Your task to perform on an android device: Open wifi settings Image 0: 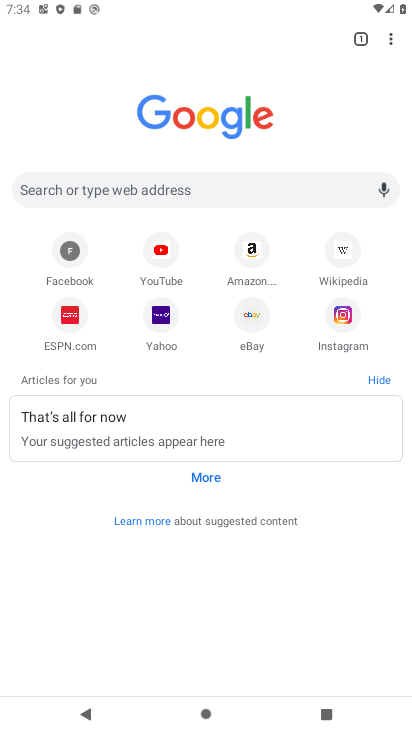
Step 0: press home button
Your task to perform on an android device: Open wifi settings Image 1: 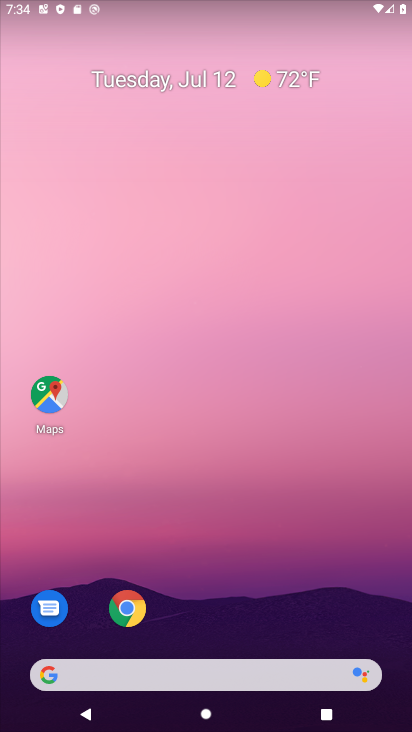
Step 1: drag from (368, 605) to (370, 128)
Your task to perform on an android device: Open wifi settings Image 2: 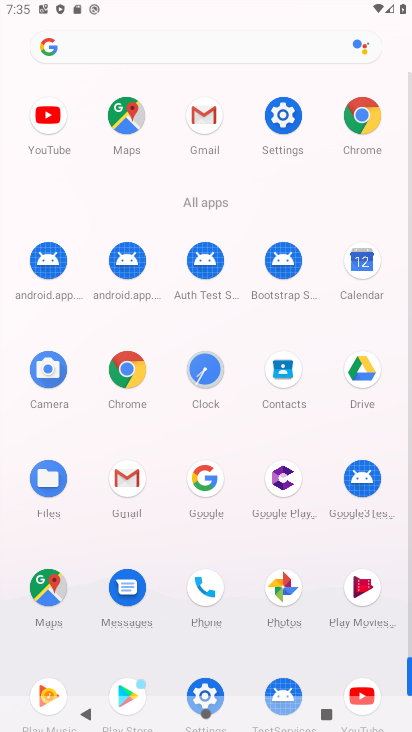
Step 2: click (286, 116)
Your task to perform on an android device: Open wifi settings Image 3: 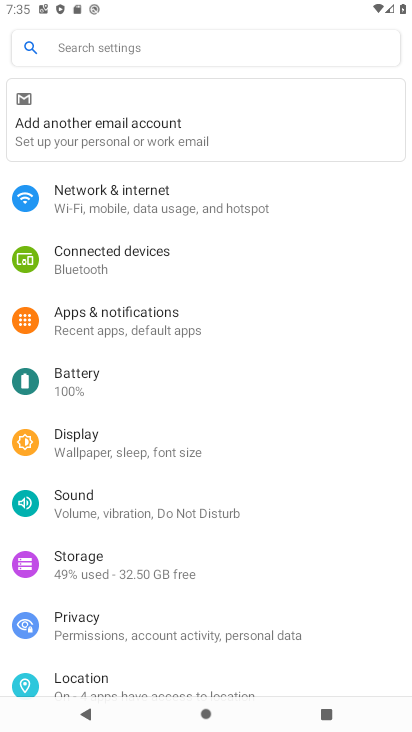
Step 3: drag from (344, 392) to (347, 276)
Your task to perform on an android device: Open wifi settings Image 4: 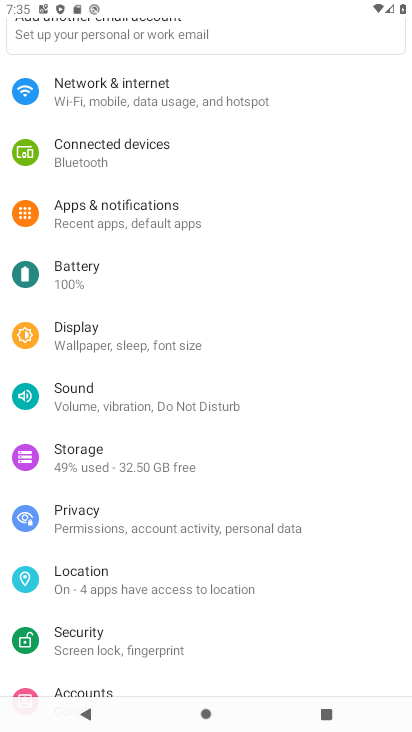
Step 4: drag from (338, 417) to (348, 248)
Your task to perform on an android device: Open wifi settings Image 5: 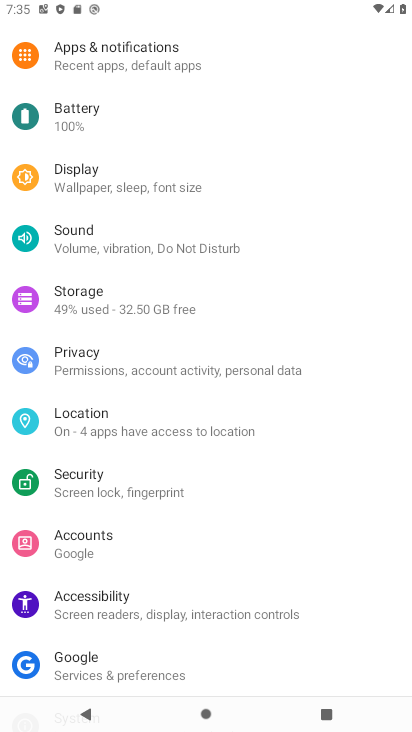
Step 5: drag from (351, 436) to (356, 231)
Your task to perform on an android device: Open wifi settings Image 6: 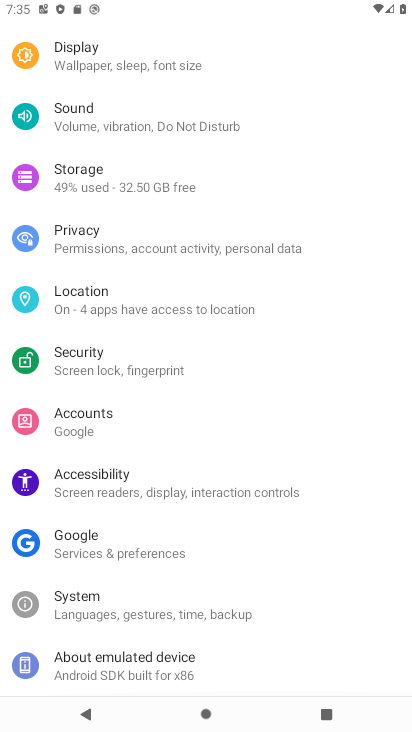
Step 6: drag from (356, 229) to (353, 316)
Your task to perform on an android device: Open wifi settings Image 7: 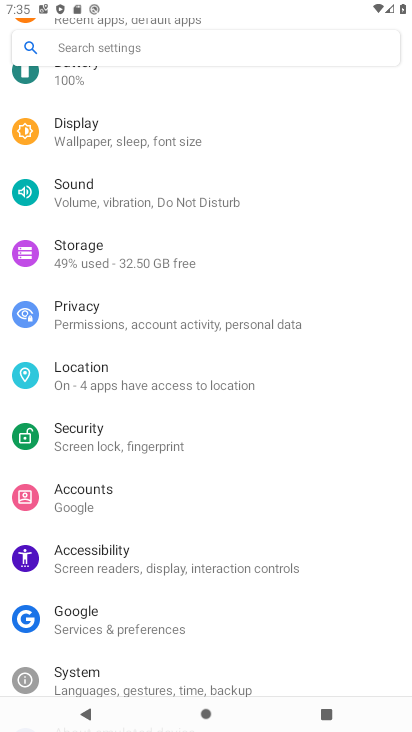
Step 7: drag from (358, 219) to (359, 305)
Your task to perform on an android device: Open wifi settings Image 8: 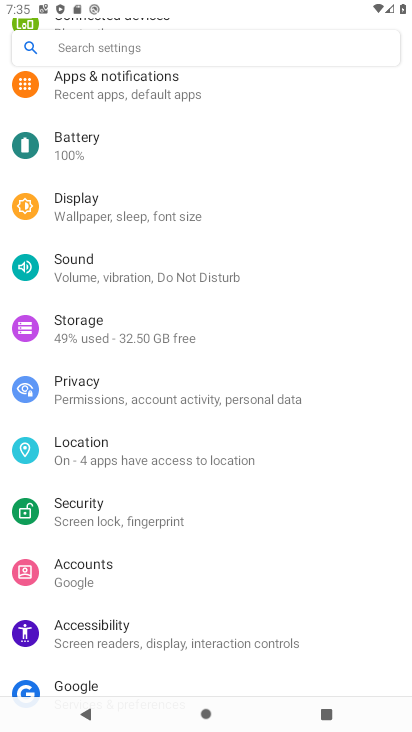
Step 8: drag from (350, 185) to (349, 266)
Your task to perform on an android device: Open wifi settings Image 9: 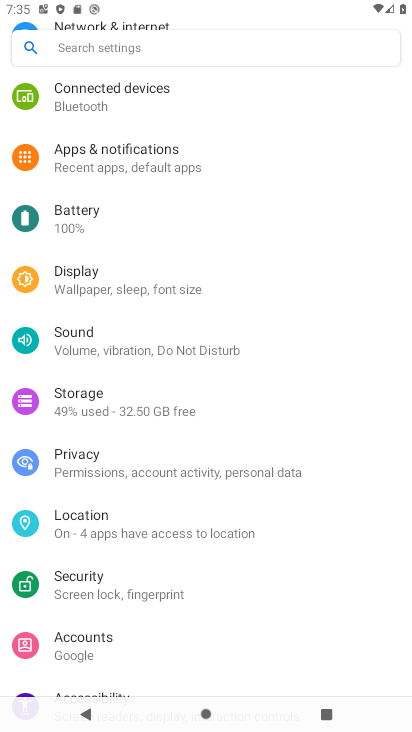
Step 9: drag from (344, 212) to (347, 293)
Your task to perform on an android device: Open wifi settings Image 10: 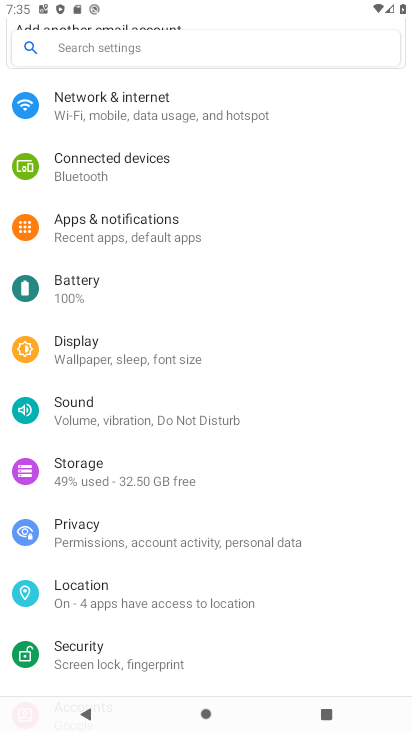
Step 10: drag from (338, 181) to (339, 417)
Your task to perform on an android device: Open wifi settings Image 11: 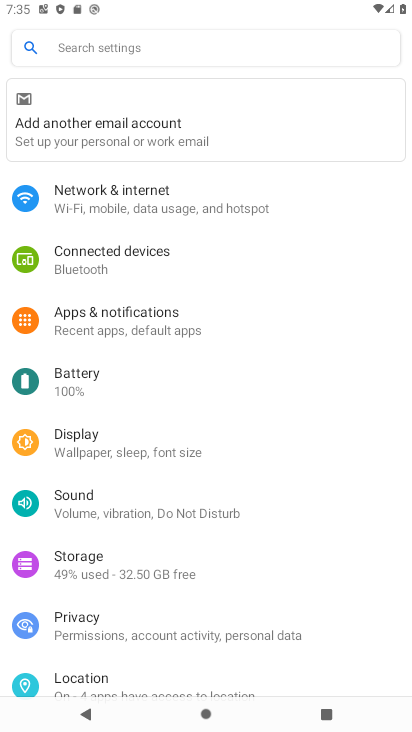
Step 11: click (239, 208)
Your task to perform on an android device: Open wifi settings Image 12: 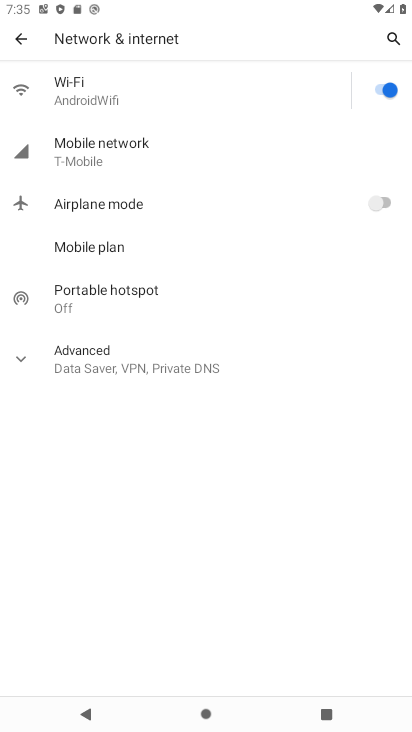
Step 12: click (144, 86)
Your task to perform on an android device: Open wifi settings Image 13: 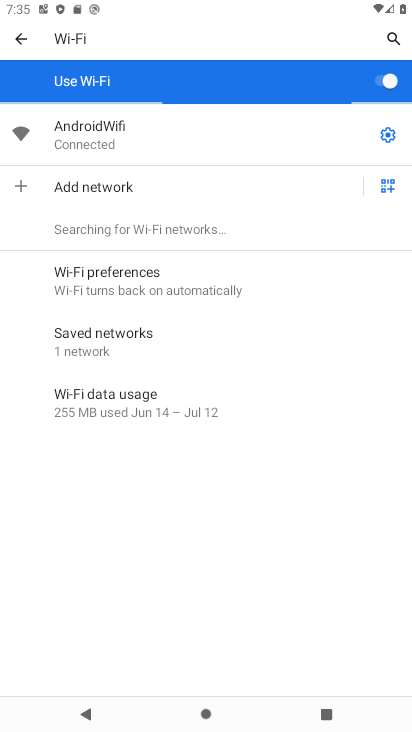
Step 13: task complete